Your task to perform on an android device: Find coffee shops on Maps Image 0: 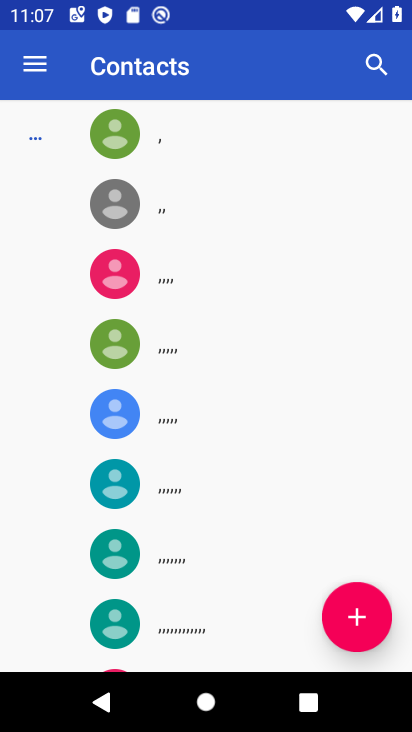
Step 0: press back button
Your task to perform on an android device: Find coffee shops on Maps Image 1: 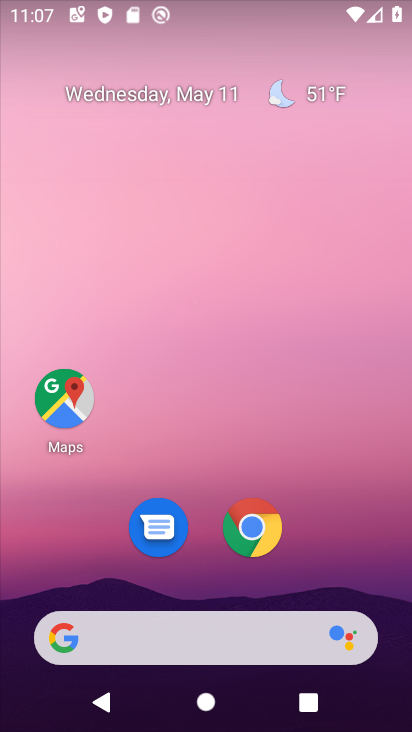
Step 1: click (63, 402)
Your task to perform on an android device: Find coffee shops on Maps Image 2: 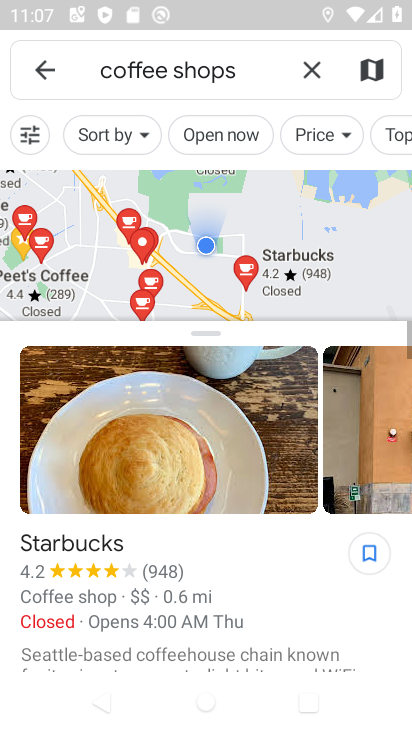
Step 2: click (303, 69)
Your task to perform on an android device: Find coffee shops on Maps Image 3: 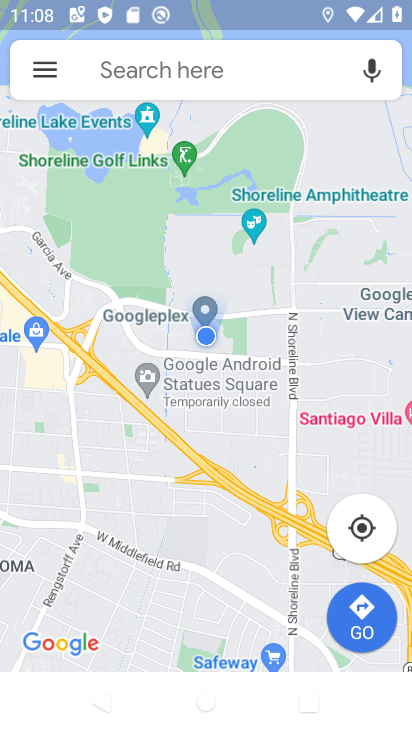
Step 3: click (130, 73)
Your task to perform on an android device: Find coffee shops on Maps Image 4: 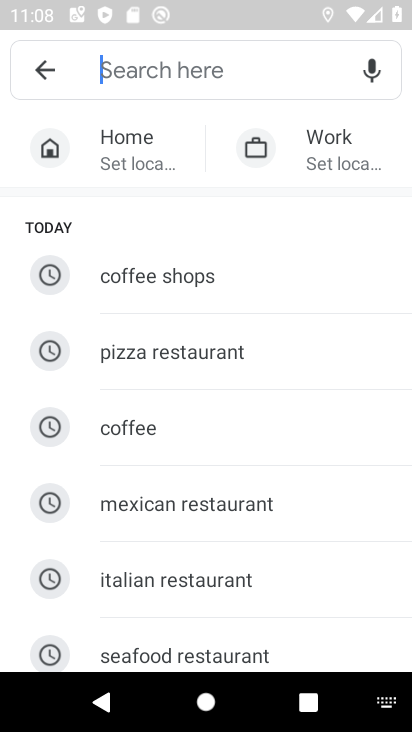
Step 4: type "coffee shops"
Your task to perform on an android device: Find coffee shops on Maps Image 5: 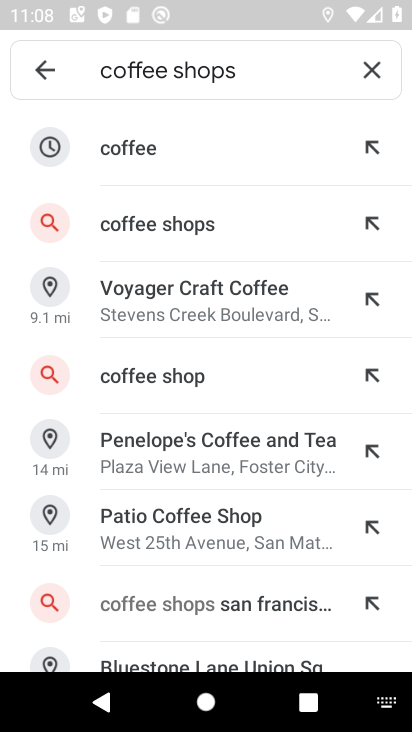
Step 5: click (187, 224)
Your task to perform on an android device: Find coffee shops on Maps Image 6: 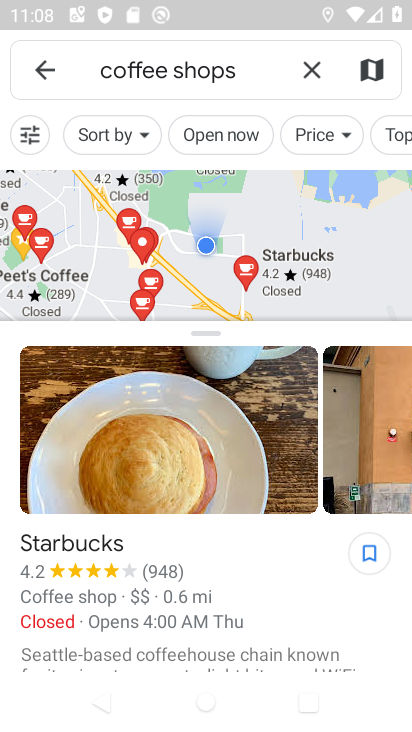
Step 6: task complete